Your task to perform on an android device: turn off sleep mode Image 0: 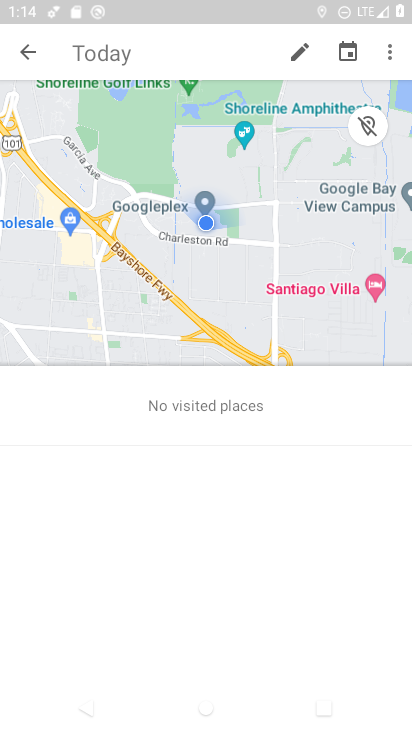
Step 0: press home button
Your task to perform on an android device: turn off sleep mode Image 1: 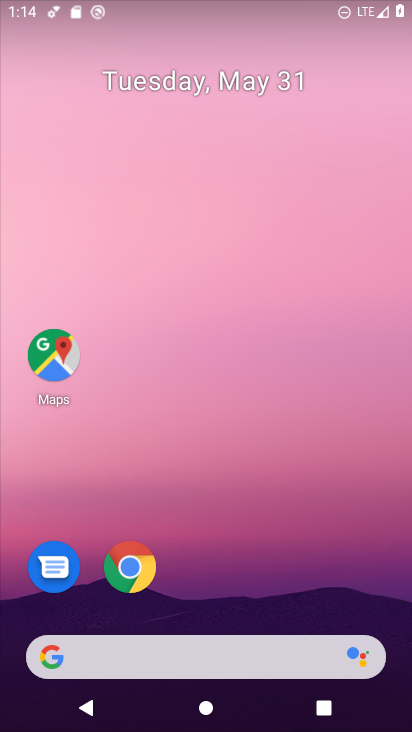
Step 1: drag from (246, 588) to (226, 46)
Your task to perform on an android device: turn off sleep mode Image 2: 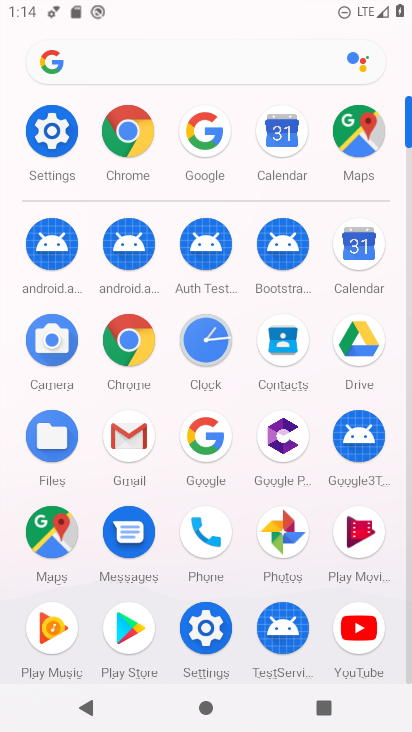
Step 2: click (61, 137)
Your task to perform on an android device: turn off sleep mode Image 3: 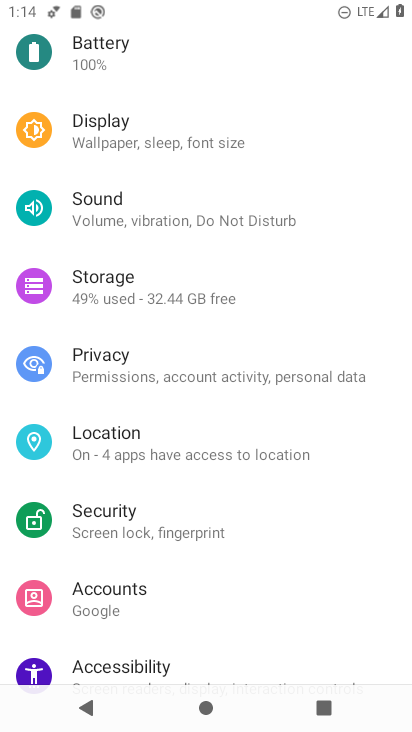
Step 3: click (167, 138)
Your task to perform on an android device: turn off sleep mode Image 4: 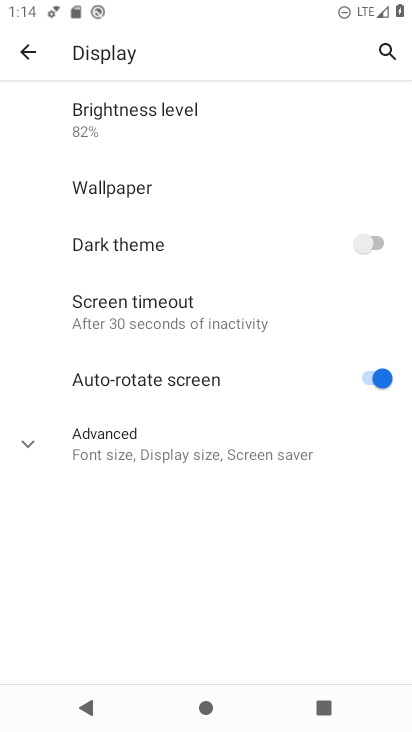
Step 4: click (175, 306)
Your task to perform on an android device: turn off sleep mode Image 5: 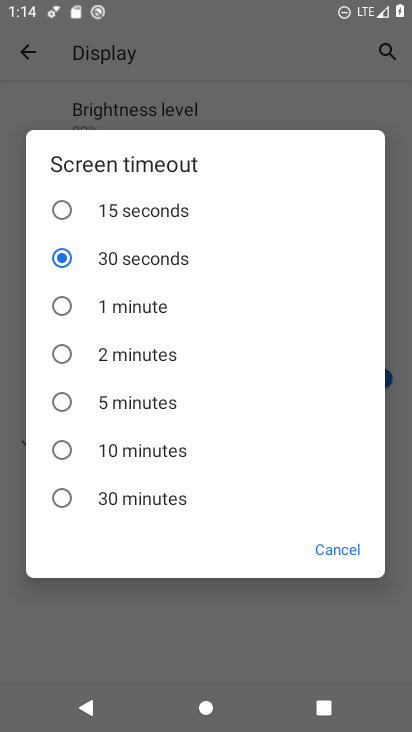
Step 5: click (130, 339)
Your task to perform on an android device: turn off sleep mode Image 6: 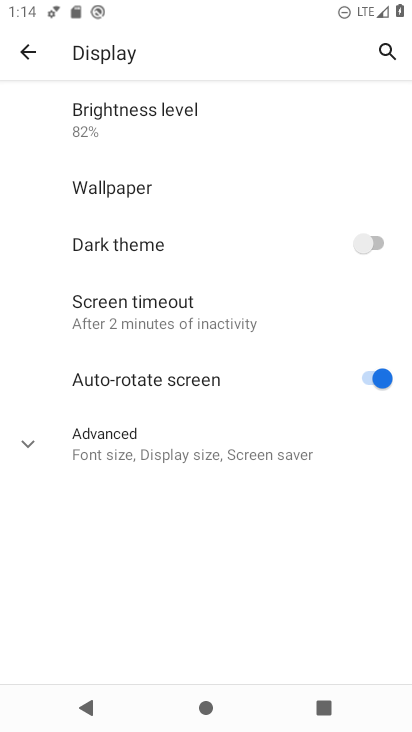
Step 6: task complete